Your task to perform on an android device: Open Google Maps and go to "Timeline" Image 0: 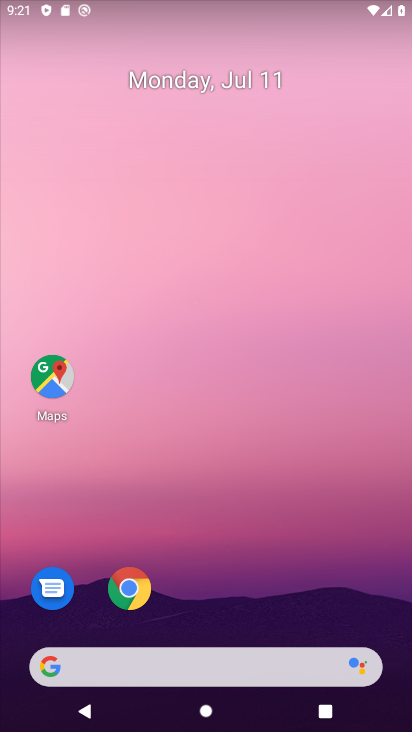
Step 0: click (270, 508)
Your task to perform on an android device: Open Google Maps and go to "Timeline" Image 1: 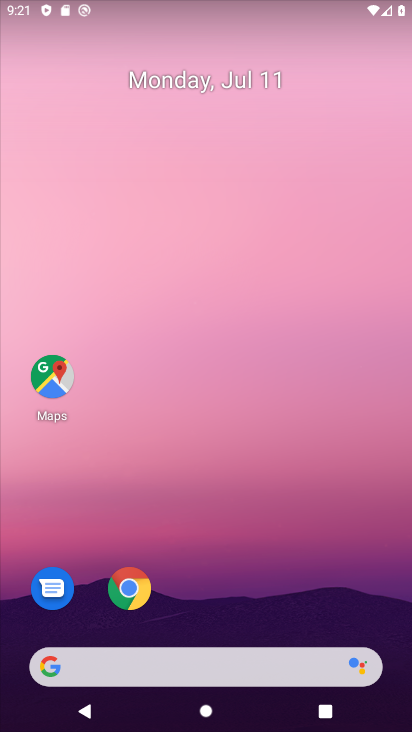
Step 1: click (35, 383)
Your task to perform on an android device: Open Google Maps and go to "Timeline" Image 2: 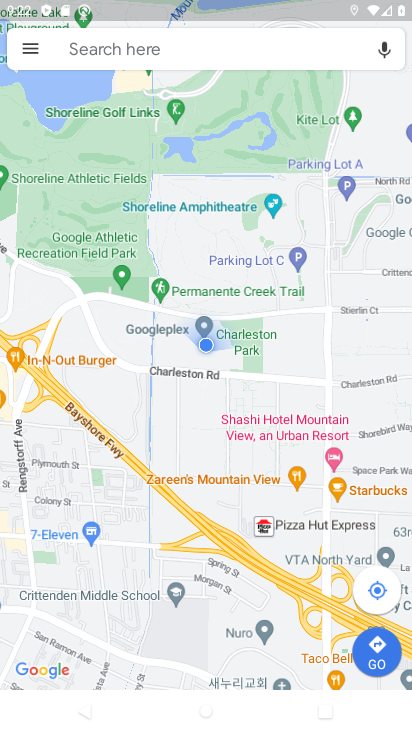
Step 2: click (22, 55)
Your task to perform on an android device: Open Google Maps and go to "Timeline" Image 3: 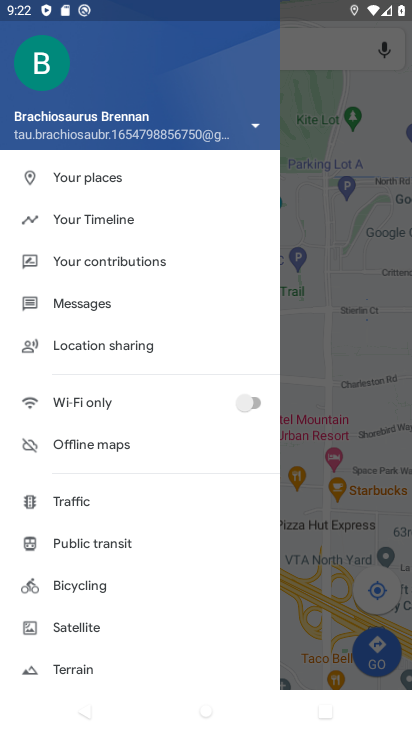
Step 3: click (83, 221)
Your task to perform on an android device: Open Google Maps and go to "Timeline" Image 4: 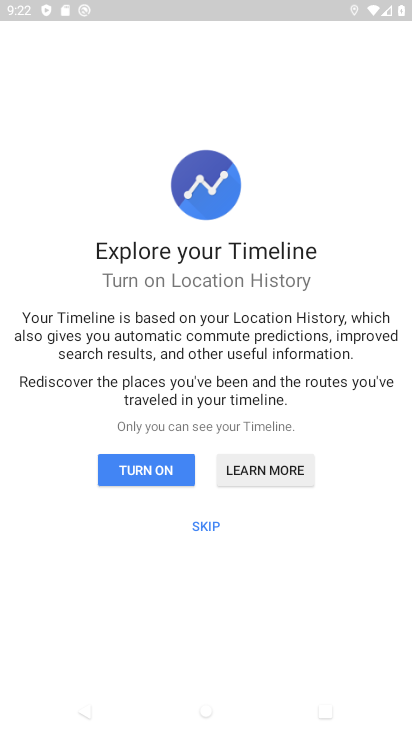
Step 4: click (207, 525)
Your task to perform on an android device: Open Google Maps and go to "Timeline" Image 5: 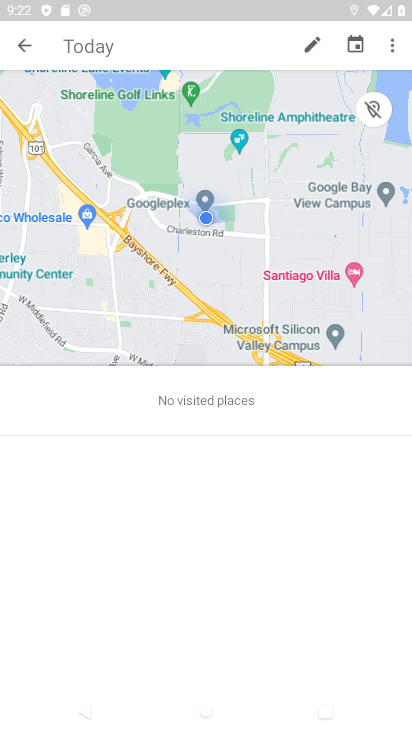
Step 5: task complete